Your task to perform on an android device: turn off notifications in google photos Image 0: 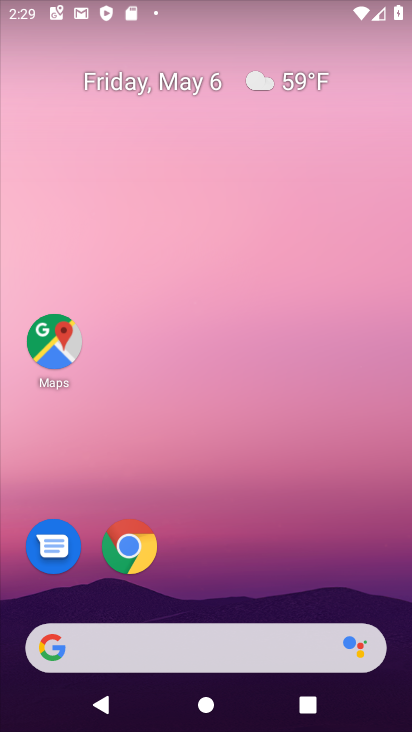
Step 0: drag from (240, 504) to (234, 88)
Your task to perform on an android device: turn off notifications in google photos Image 1: 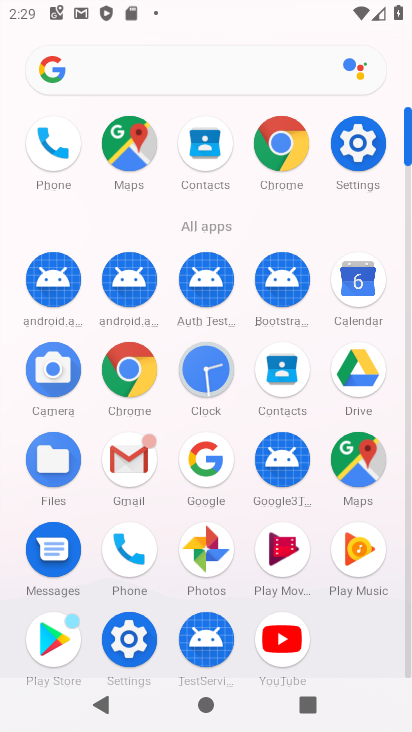
Step 1: click (208, 548)
Your task to perform on an android device: turn off notifications in google photos Image 2: 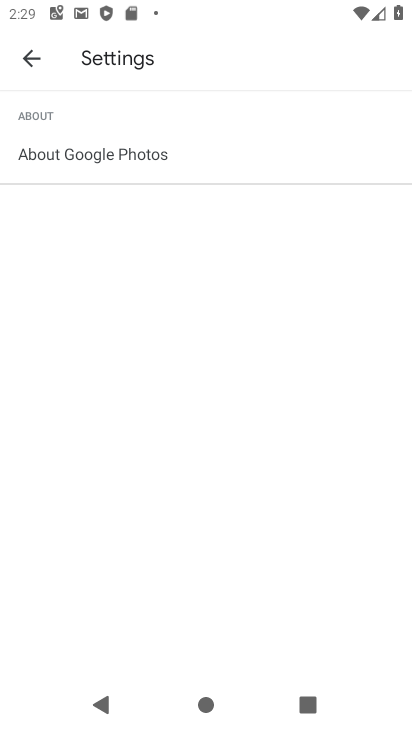
Step 2: click (36, 55)
Your task to perform on an android device: turn off notifications in google photos Image 3: 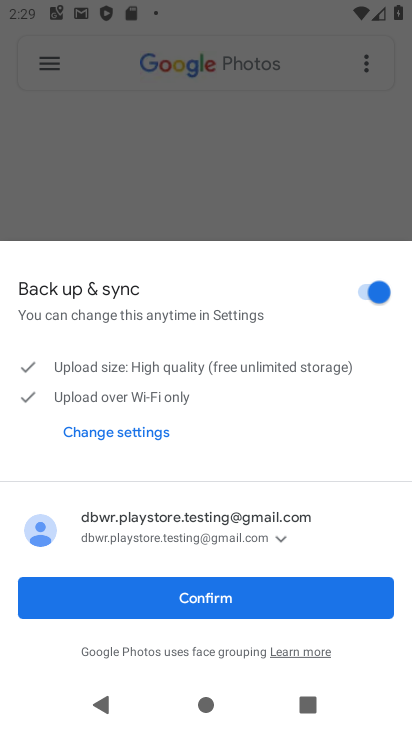
Step 3: click (233, 596)
Your task to perform on an android device: turn off notifications in google photos Image 4: 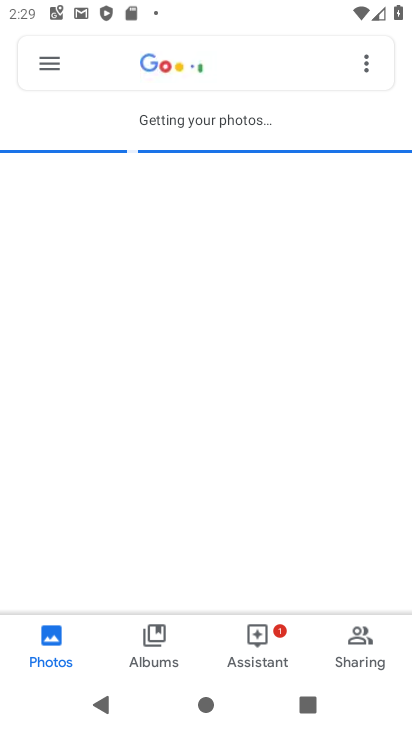
Step 4: click (46, 63)
Your task to perform on an android device: turn off notifications in google photos Image 5: 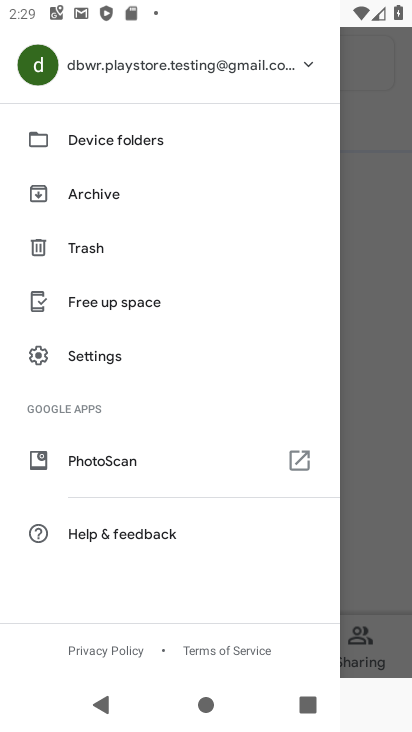
Step 5: click (114, 355)
Your task to perform on an android device: turn off notifications in google photos Image 6: 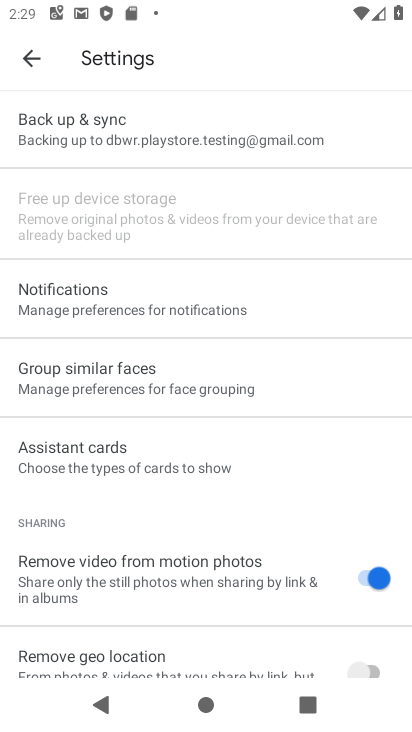
Step 6: click (147, 305)
Your task to perform on an android device: turn off notifications in google photos Image 7: 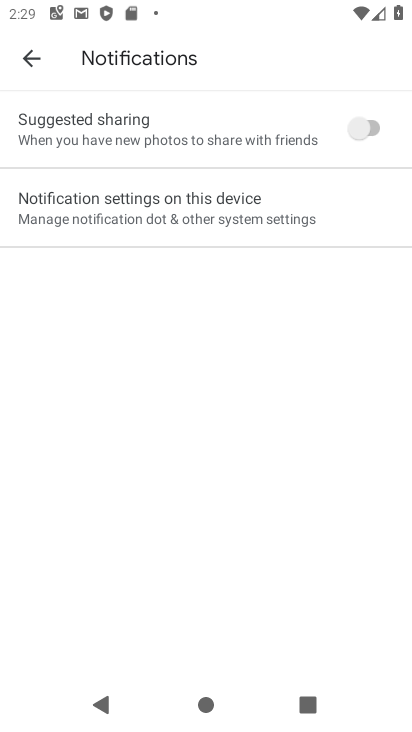
Step 7: click (159, 215)
Your task to perform on an android device: turn off notifications in google photos Image 8: 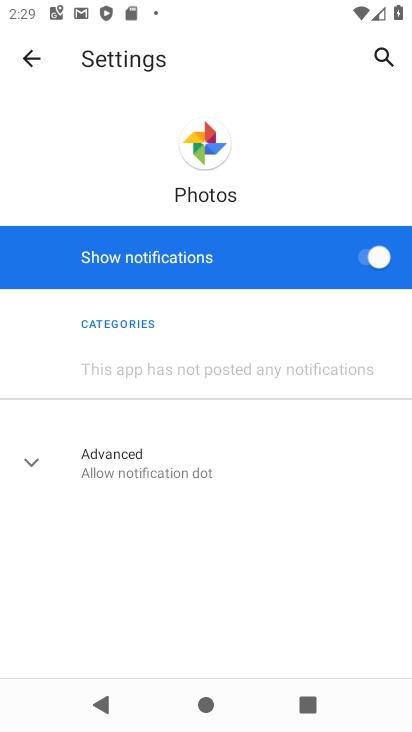
Step 8: click (368, 254)
Your task to perform on an android device: turn off notifications in google photos Image 9: 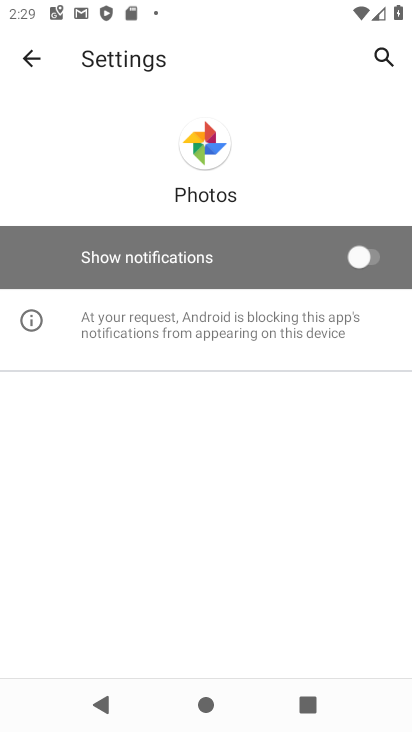
Step 9: task complete